Your task to perform on an android device: open app "Move to iOS" Image 0: 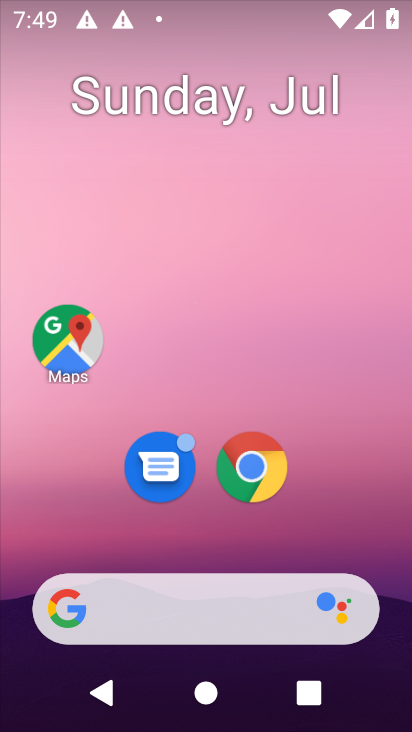
Step 0: drag from (185, 534) to (302, 27)
Your task to perform on an android device: open app "Move to iOS" Image 1: 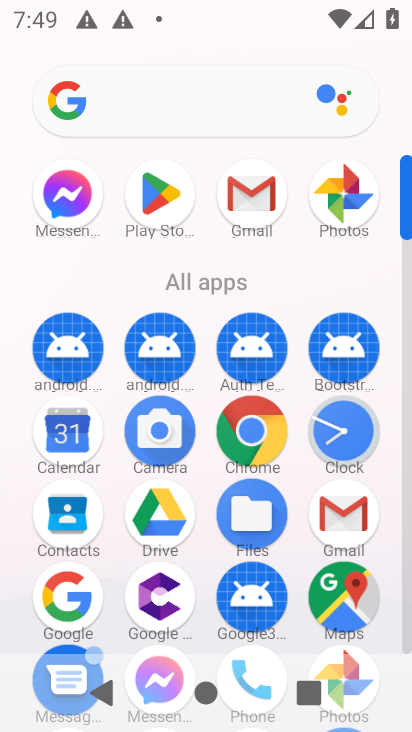
Step 1: drag from (206, 596) to (224, 254)
Your task to perform on an android device: open app "Move to iOS" Image 2: 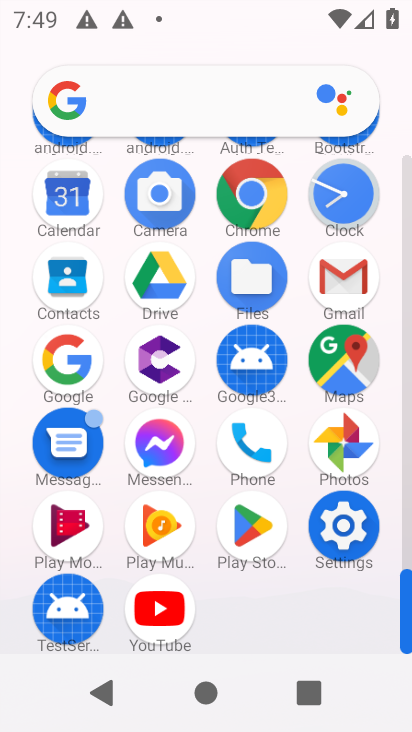
Step 2: click (258, 529)
Your task to perform on an android device: open app "Move to iOS" Image 3: 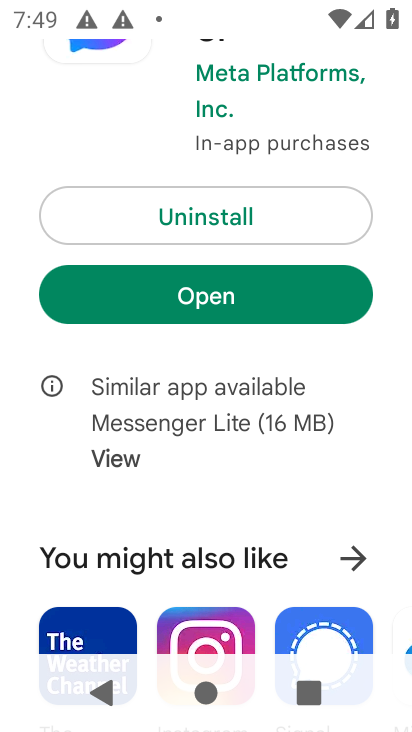
Step 3: drag from (145, 109) to (207, 505)
Your task to perform on an android device: open app "Move to iOS" Image 4: 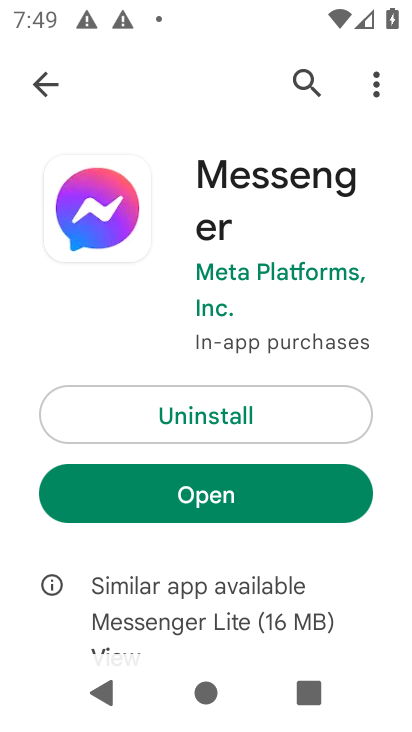
Step 4: click (305, 90)
Your task to perform on an android device: open app "Move to iOS" Image 5: 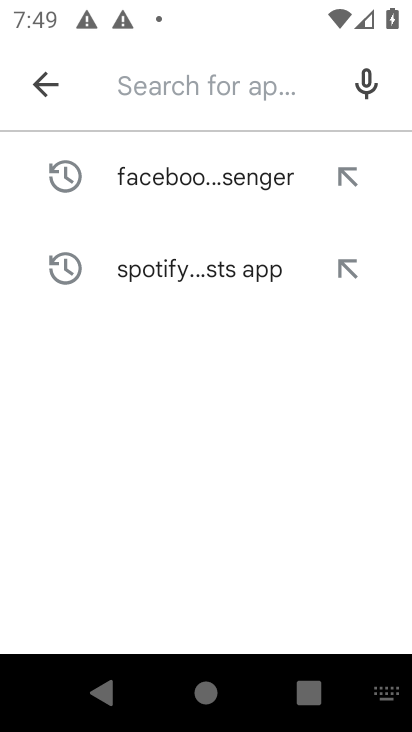
Step 5: type "Move to iOS"
Your task to perform on an android device: open app "Move to iOS" Image 6: 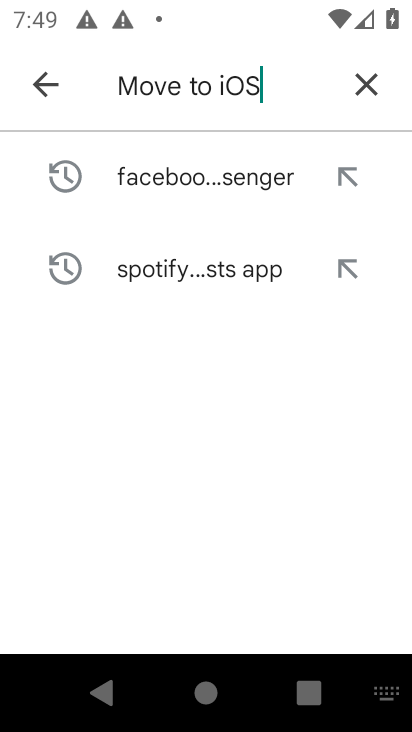
Step 6: type ""
Your task to perform on an android device: open app "Move to iOS" Image 7: 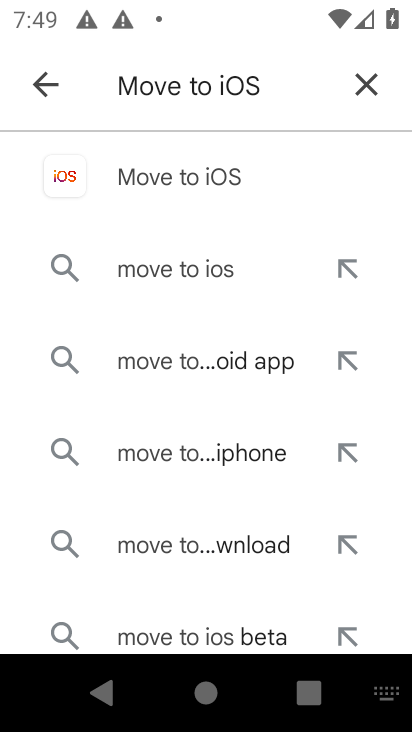
Step 7: click (145, 166)
Your task to perform on an android device: open app "Move to iOS" Image 8: 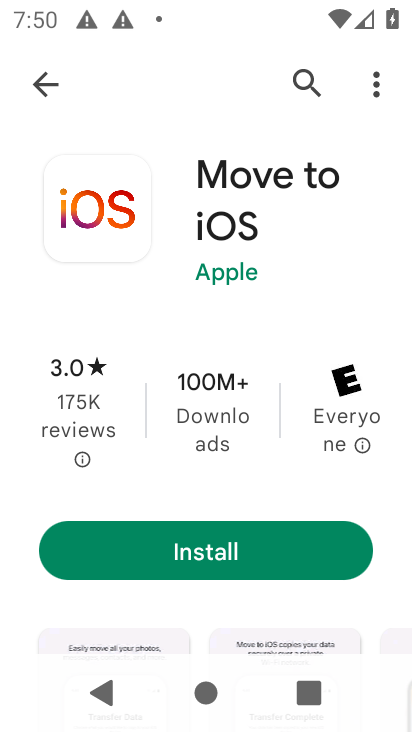
Step 8: task complete